Your task to perform on an android device: Play the last video I watched on Youtube Image 0: 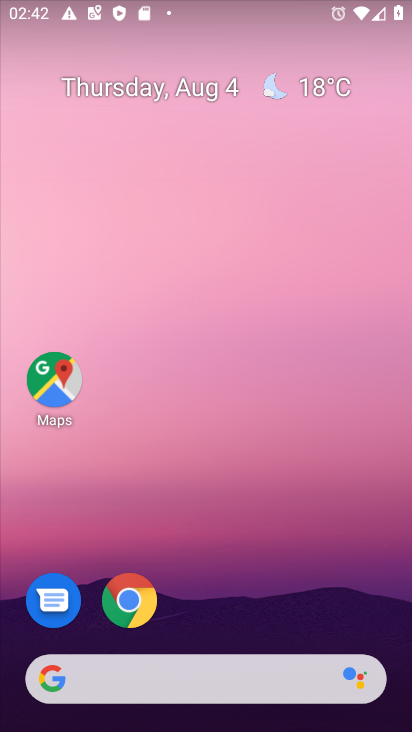
Step 0: drag from (201, 680) to (333, 164)
Your task to perform on an android device: Play the last video I watched on Youtube Image 1: 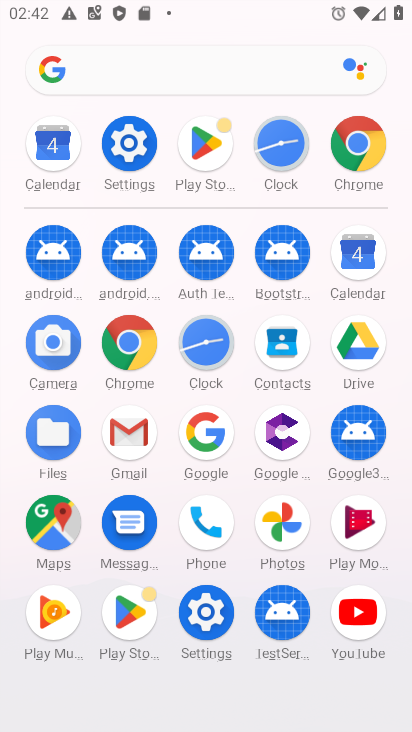
Step 1: click (363, 615)
Your task to perform on an android device: Play the last video I watched on Youtube Image 2: 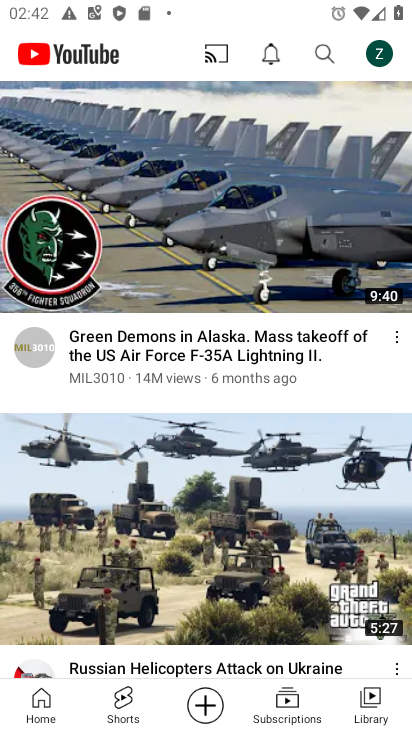
Step 2: click (371, 710)
Your task to perform on an android device: Play the last video I watched on Youtube Image 3: 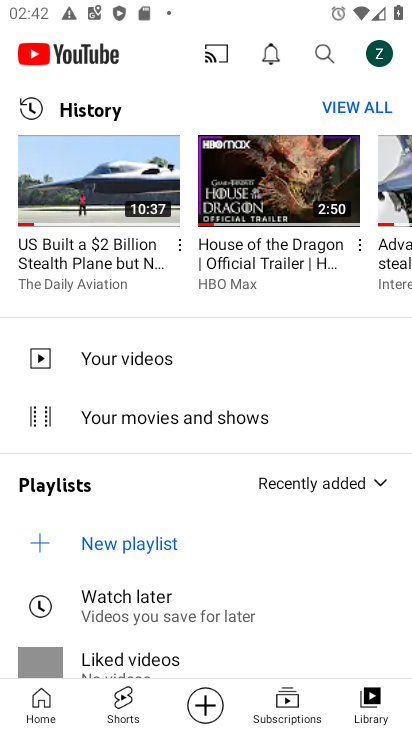
Step 3: click (86, 165)
Your task to perform on an android device: Play the last video I watched on Youtube Image 4: 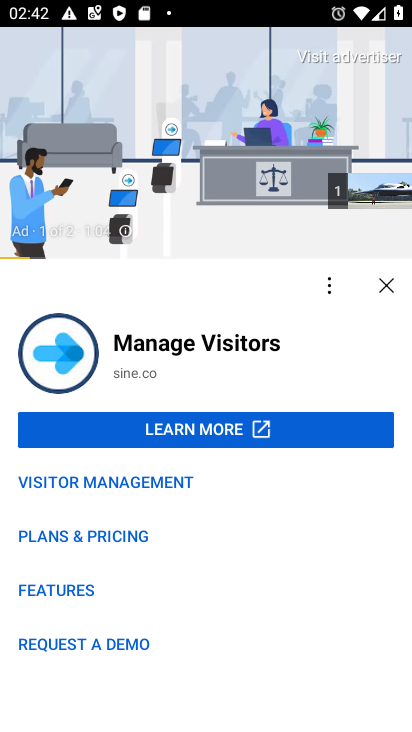
Step 4: click (389, 285)
Your task to perform on an android device: Play the last video I watched on Youtube Image 5: 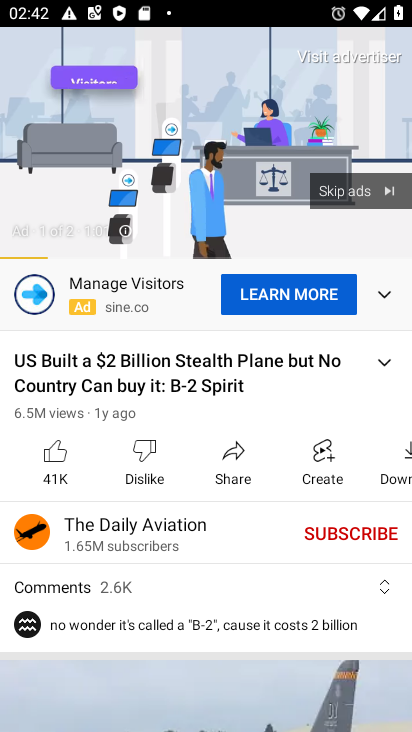
Step 5: click (364, 193)
Your task to perform on an android device: Play the last video I watched on Youtube Image 6: 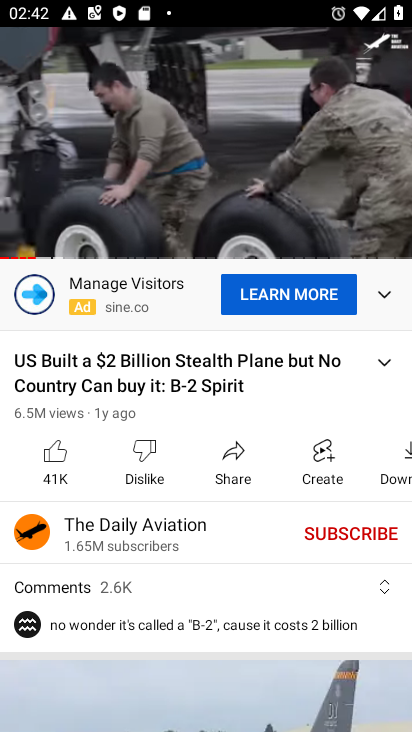
Step 6: click (182, 113)
Your task to perform on an android device: Play the last video I watched on Youtube Image 7: 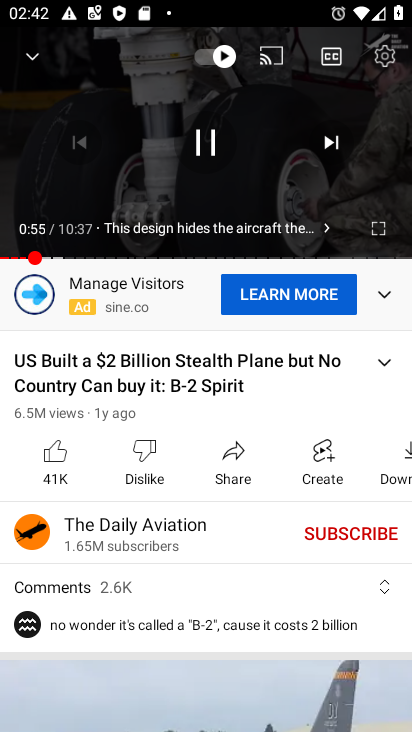
Step 7: click (215, 143)
Your task to perform on an android device: Play the last video I watched on Youtube Image 8: 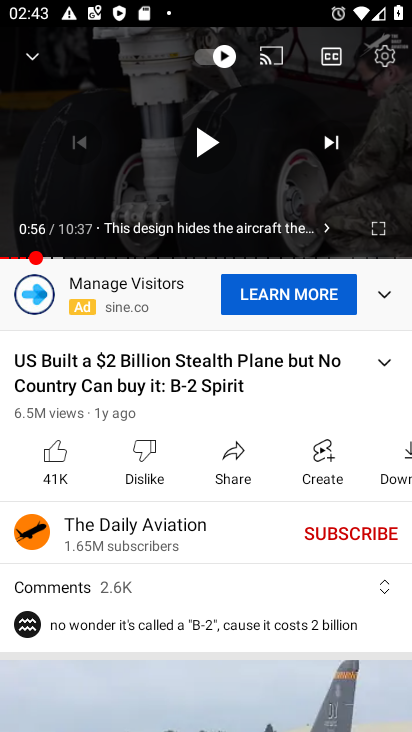
Step 8: task complete